Your task to perform on an android device: toggle translation in the chrome app Image 0: 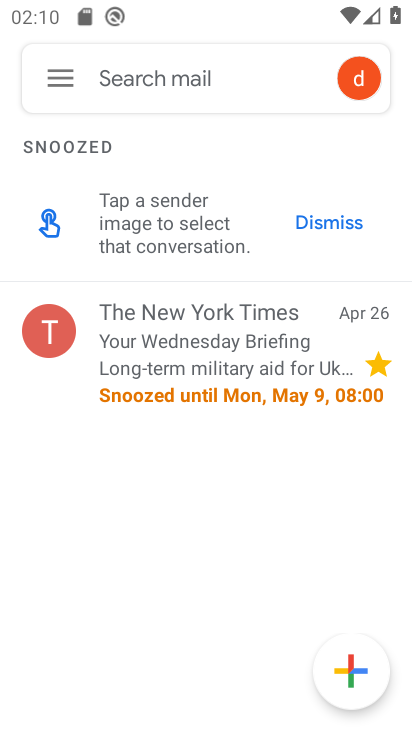
Step 0: press home button
Your task to perform on an android device: toggle translation in the chrome app Image 1: 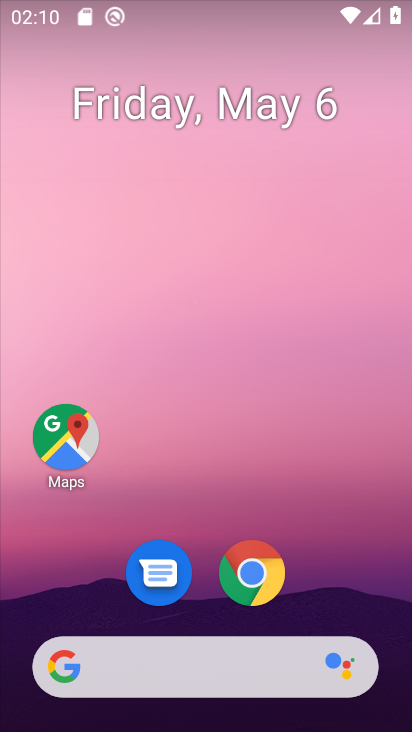
Step 1: drag from (300, 601) to (356, 218)
Your task to perform on an android device: toggle translation in the chrome app Image 2: 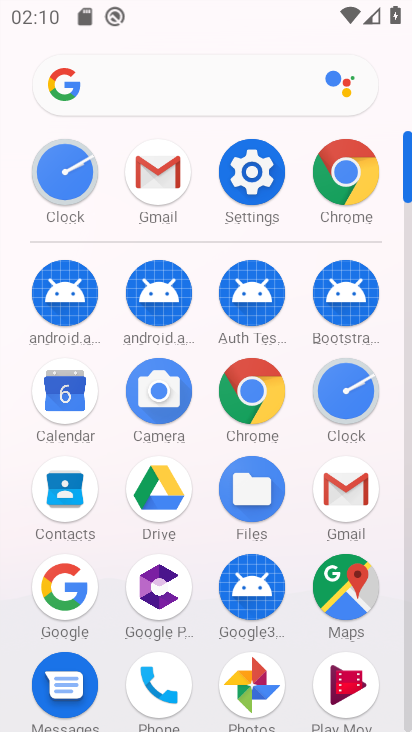
Step 2: click (239, 404)
Your task to perform on an android device: toggle translation in the chrome app Image 3: 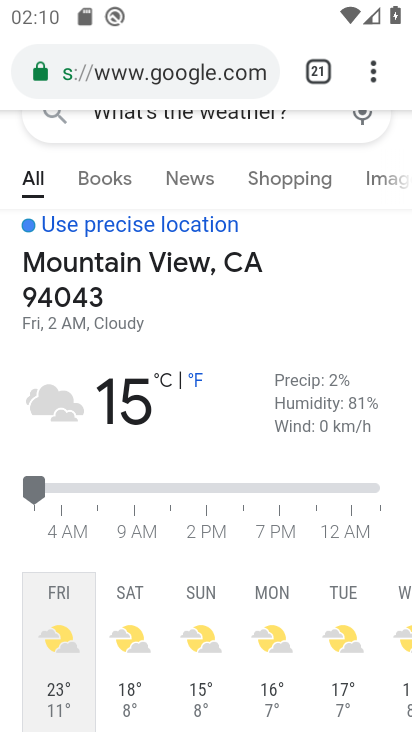
Step 3: click (356, 76)
Your task to perform on an android device: toggle translation in the chrome app Image 4: 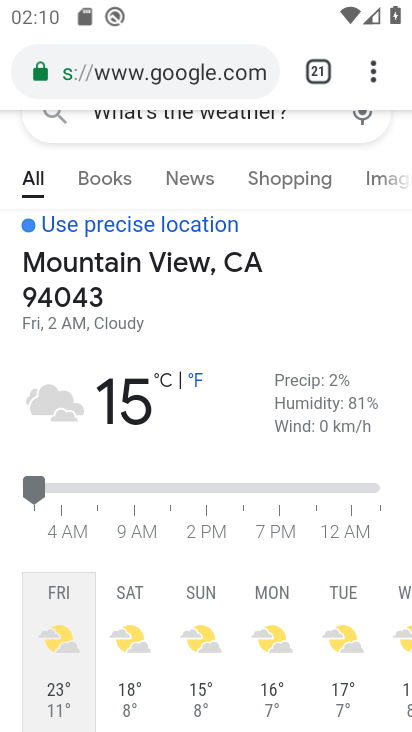
Step 4: click (346, 72)
Your task to perform on an android device: toggle translation in the chrome app Image 5: 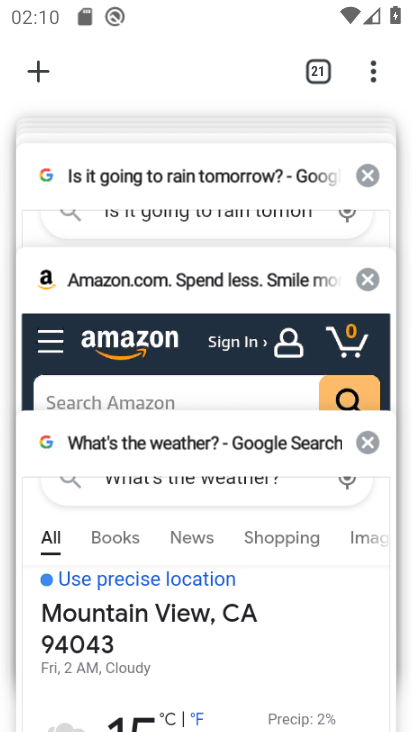
Step 5: click (361, 59)
Your task to perform on an android device: toggle translation in the chrome app Image 6: 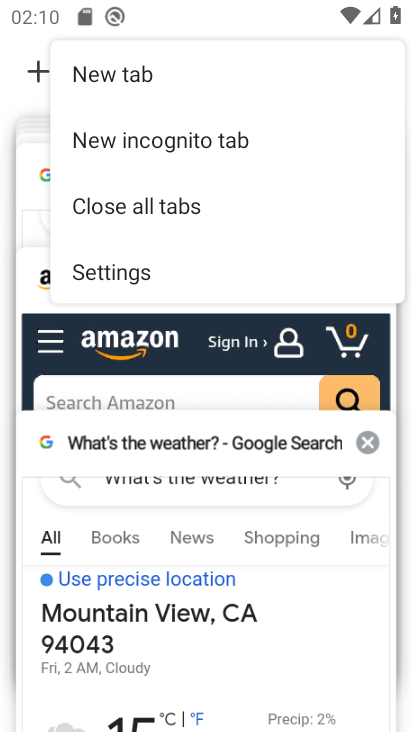
Step 6: click (181, 263)
Your task to perform on an android device: toggle translation in the chrome app Image 7: 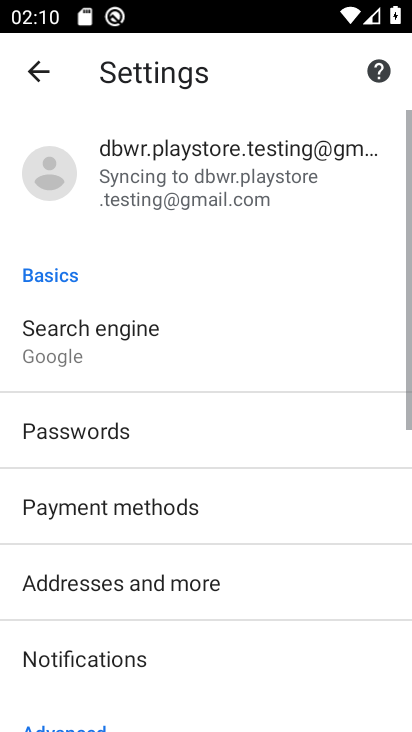
Step 7: drag from (212, 685) to (280, 246)
Your task to perform on an android device: toggle translation in the chrome app Image 8: 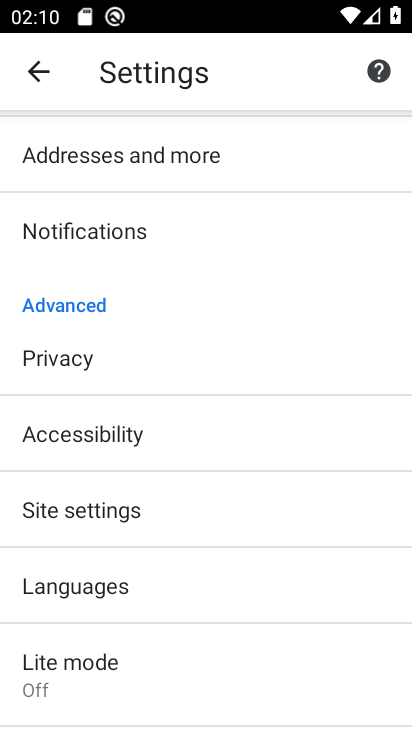
Step 8: click (178, 582)
Your task to perform on an android device: toggle translation in the chrome app Image 9: 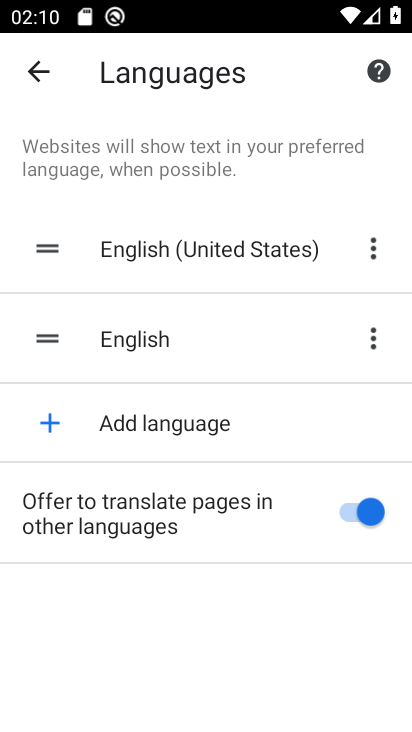
Step 9: click (354, 505)
Your task to perform on an android device: toggle translation in the chrome app Image 10: 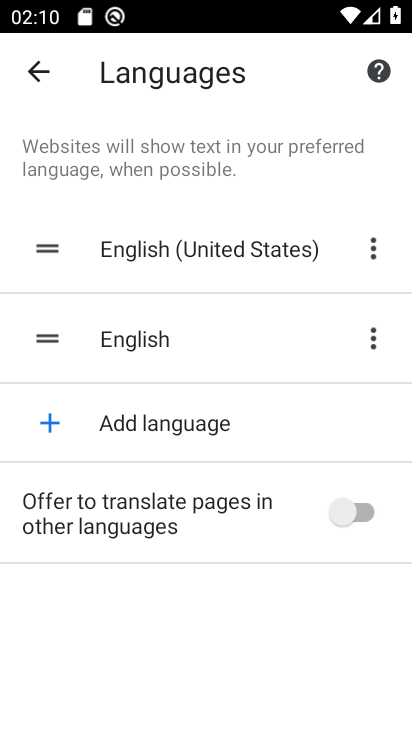
Step 10: task complete